Your task to perform on an android device: delete browsing data in the chrome app Image 0: 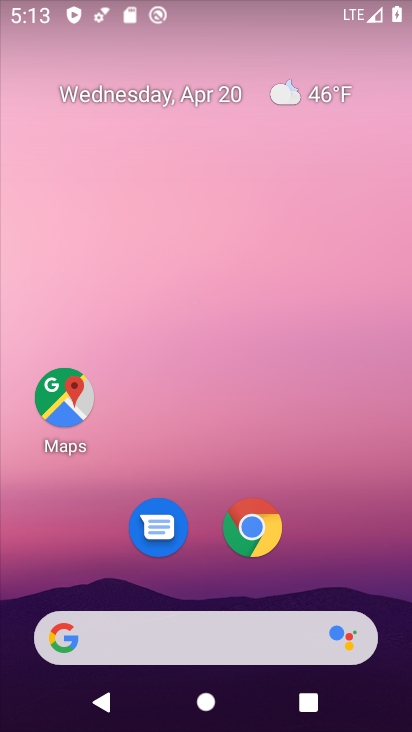
Step 0: click (252, 518)
Your task to perform on an android device: delete browsing data in the chrome app Image 1: 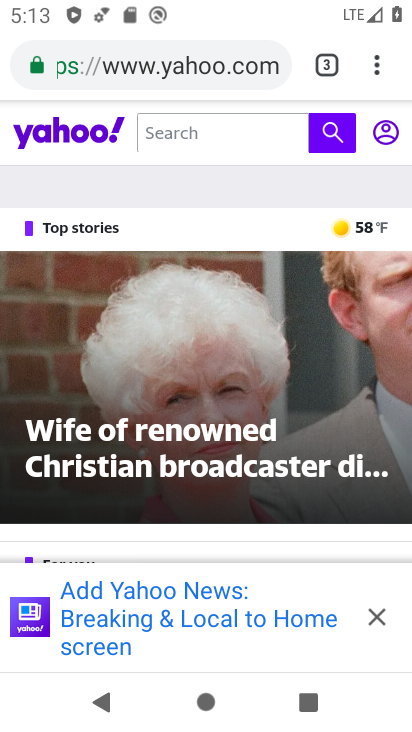
Step 1: click (370, 64)
Your task to perform on an android device: delete browsing data in the chrome app Image 2: 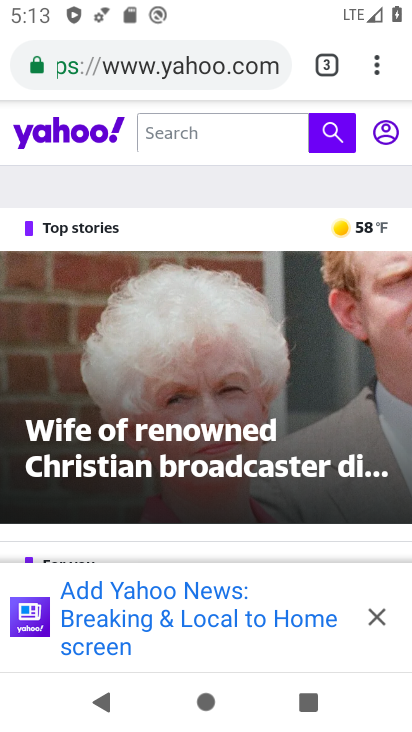
Step 2: click (370, 64)
Your task to perform on an android device: delete browsing data in the chrome app Image 3: 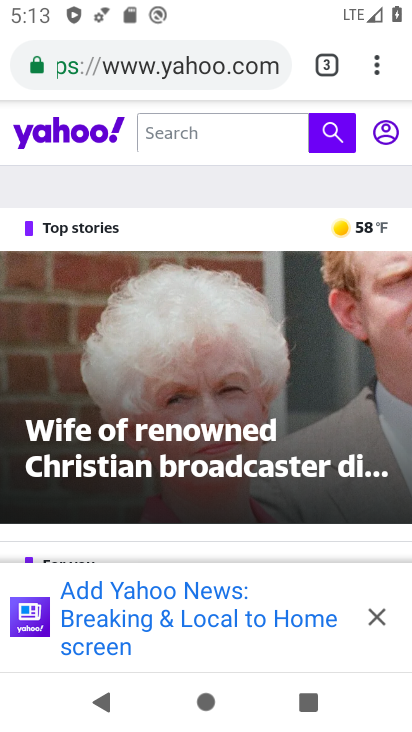
Step 3: click (370, 64)
Your task to perform on an android device: delete browsing data in the chrome app Image 4: 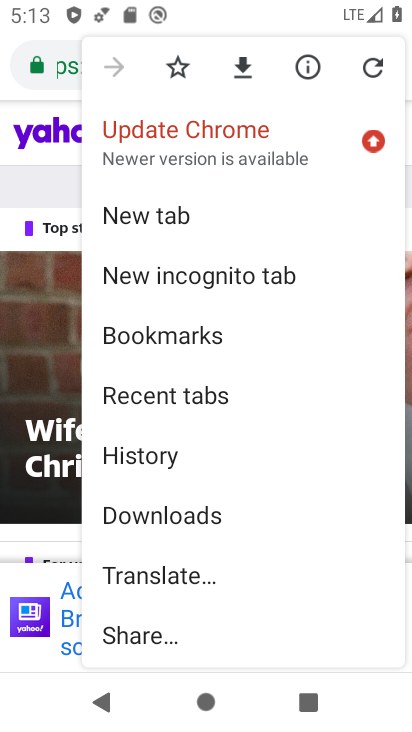
Step 4: click (165, 451)
Your task to perform on an android device: delete browsing data in the chrome app Image 5: 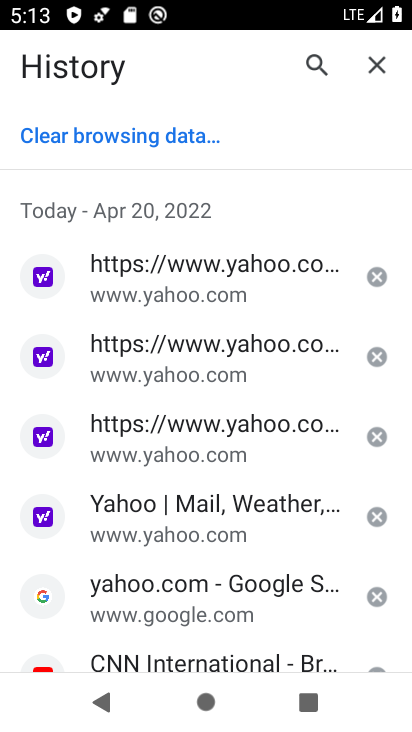
Step 5: click (148, 129)
Your task to perform on an android device: delete browsing data in the chrome app Image 6: 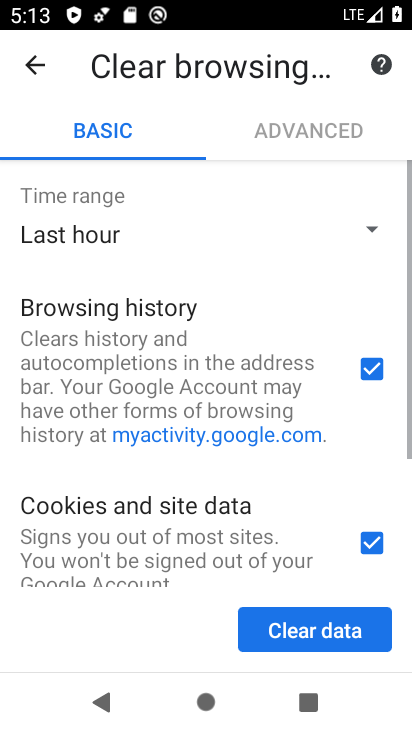
Step 6: click (337, 624)
Your task to perform on an android device: delete browsing data in the chrome app Image 7: 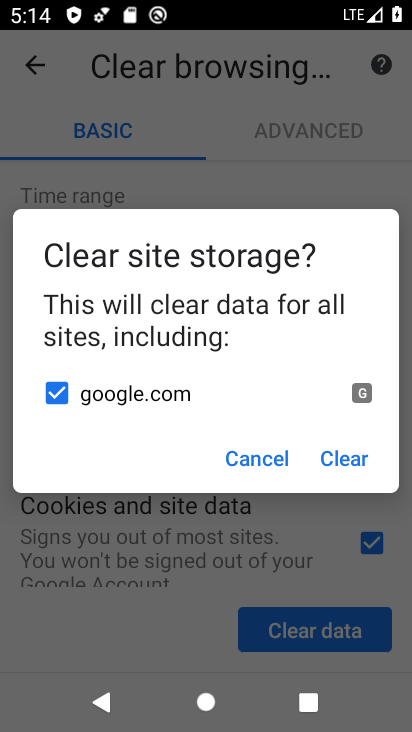
Step 7: click (344, 465)
Your task to perform on an android device: delete browsing data in the chrome app Image 8: 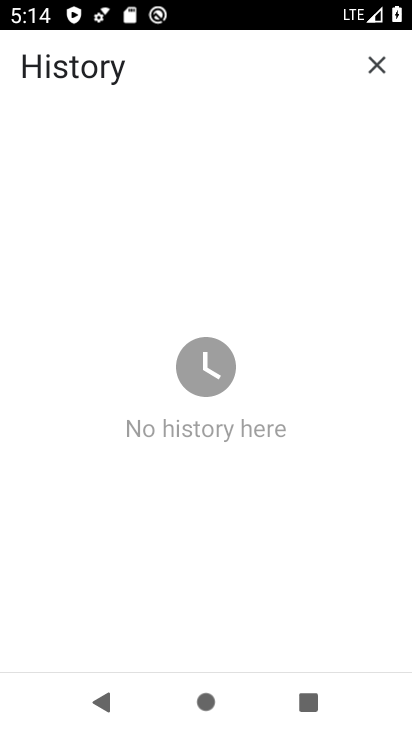
Step 8: task complete